Your task to perform on an android device: Go to Wikipedia Image 0: 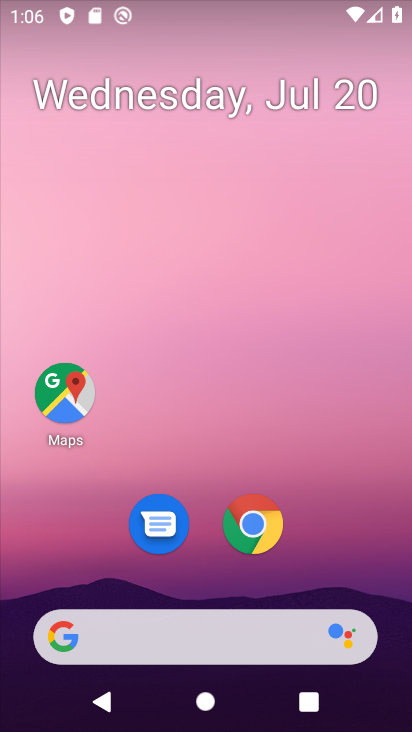
Step 0: click (269, 518)
Your task to perform on an android device: Go to Wikipedia Image 1: 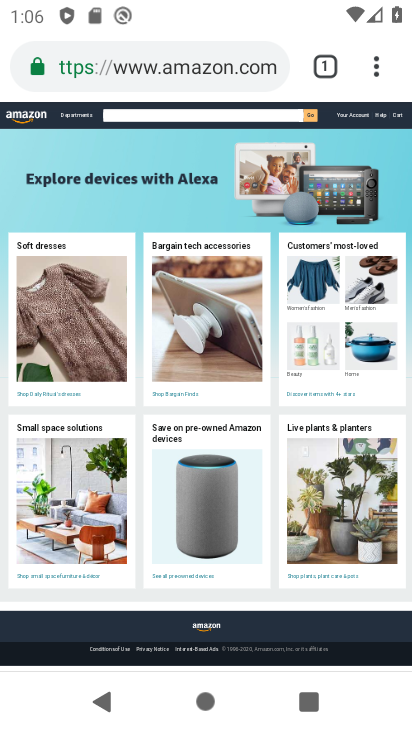
Step 1: click (375, 60)
Your task to perform on an android device: Go to Wikipedia Image 2: 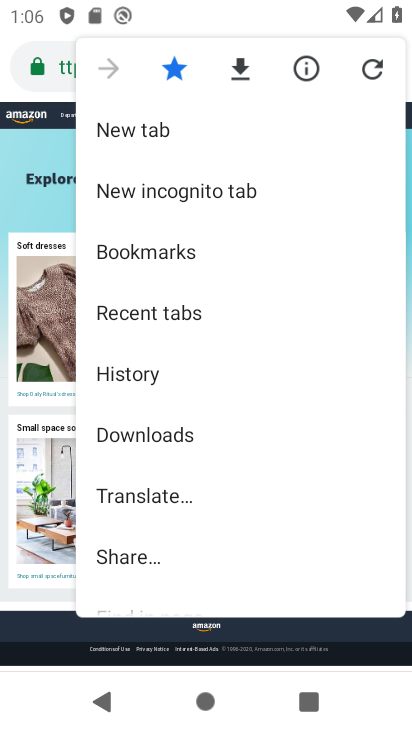
Step 2: click (289, 116)
Your task to perform on an android device: Go to Wikipedia Image 3: 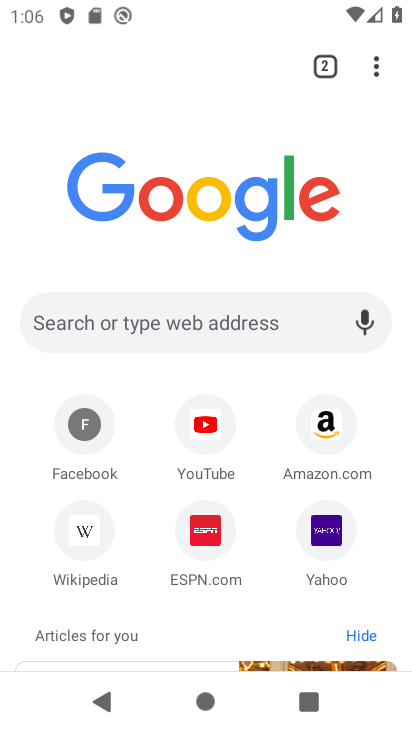
Step 3: click (88, 532)
Your task to perform on an android device: Go to Wikipedia Image 4: 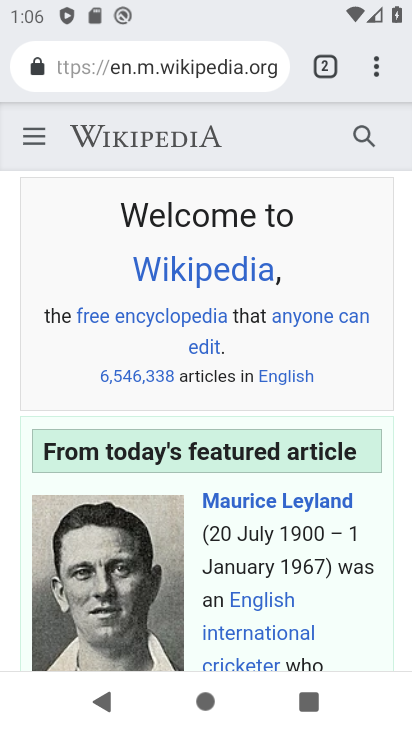
Step 4: task complete